Your task to perform on an android device: Go to accessibility settings Image 0: 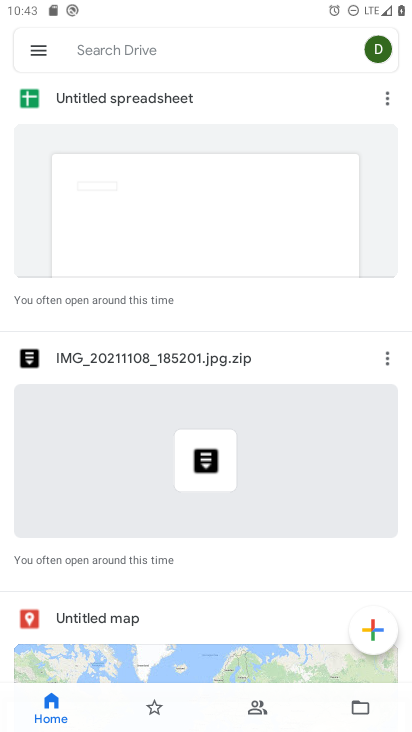
Step 0: press home button
Your task to perform on an android device: Go to accessibility settings Image 1: 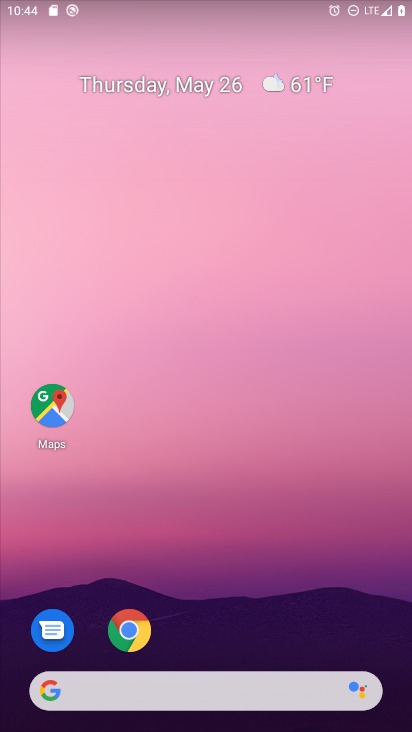
Step 1: drag from (207, 663) to (162, 111)
Your task to perform on an android device: Go to accessibility settings Image 2: 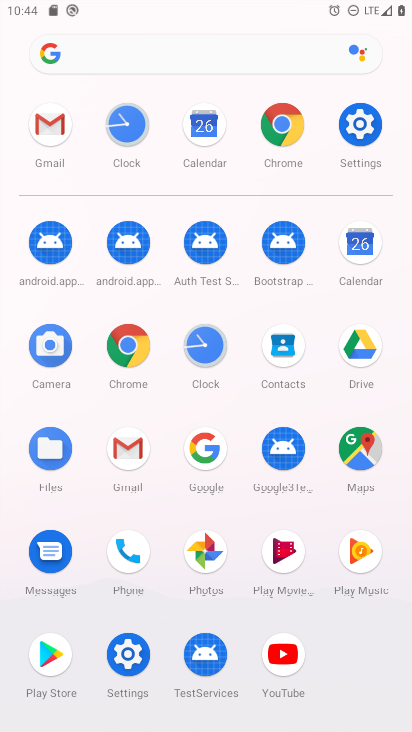
Step 2: click (120, 647)
Your task to perform on an android device: Go to accessibility settings Image 3: 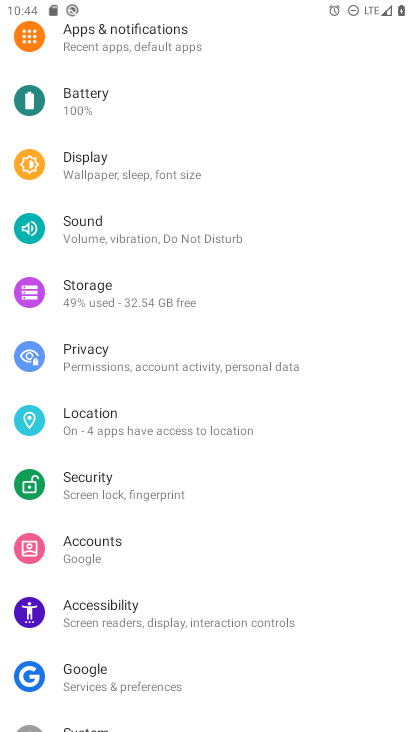
Step 3: click (53, 597)
Your task to perform on an android device: Go to accessibility settings Image 4: 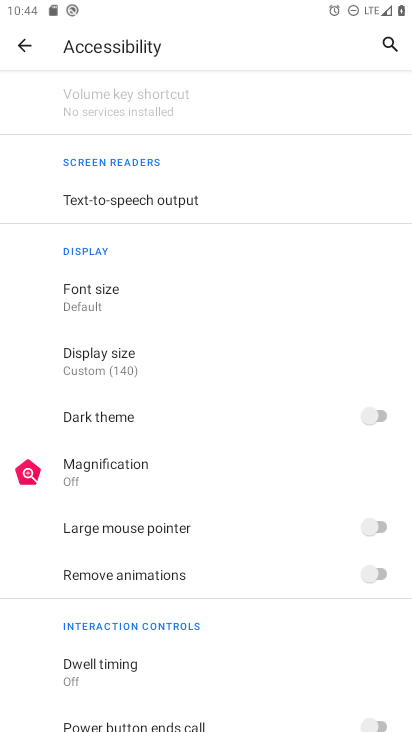
Step 4: task complete